Your task to perform on an android device: turn on translation in the chrome app Image 0: 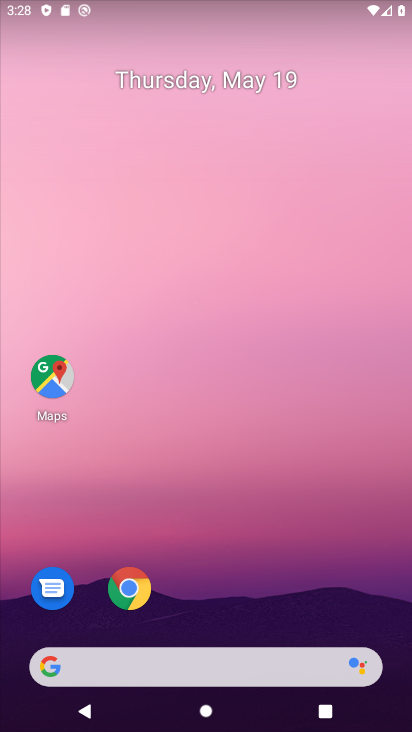
Step 0: click (142, 595)
Your task to perform on an android device: turn on translation in the chrome app Image 1: 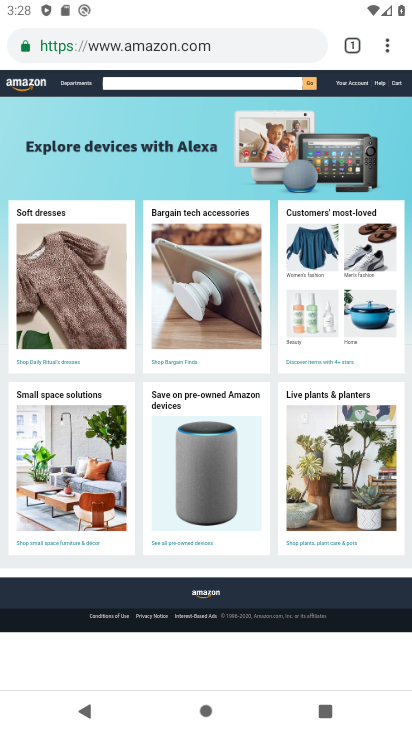
Step 1: click (386, 39)
Your task to perform on an android device: turn on translation in the chrome app Image 2: 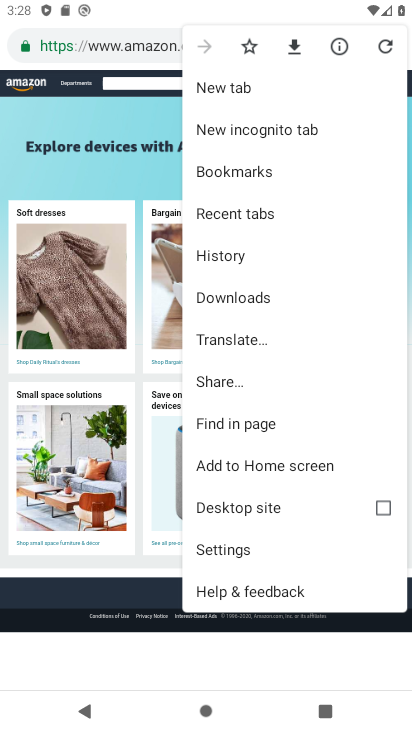
Step 2: click (238, 551)
Your task to perform on an android device: turn on translation in the chrome app Image 3: 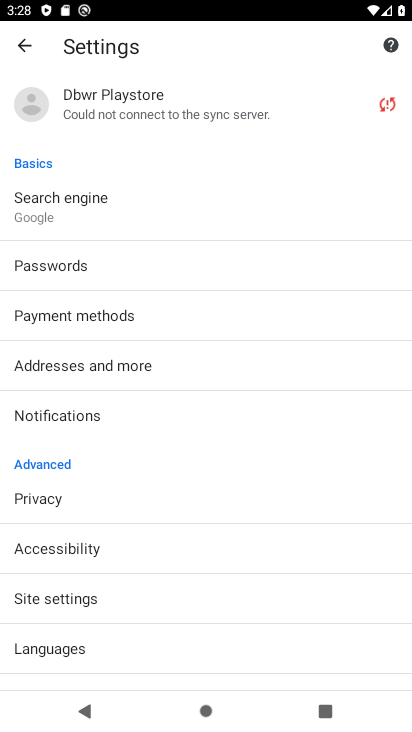
Step 3: drag from (110, 425) to (148, 287)
Your task to perform on an android device: turn on translation in the chrome app Image 4: 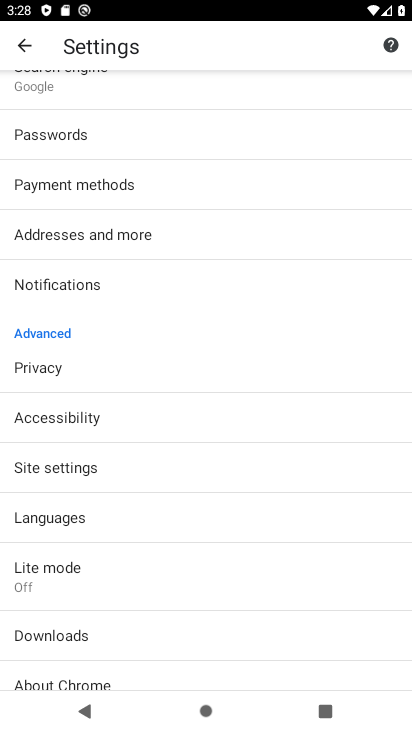
Step 4: click (71, 514)
Your task to perform on an android device: turn on translation in the chrome app Image 5: 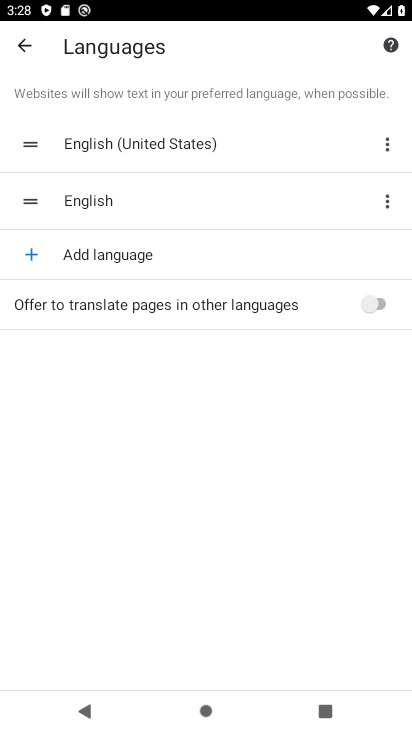
Step 5: click (385, 307)
Your task to perform on an android device: turn on translation in the chrome app Image 6: 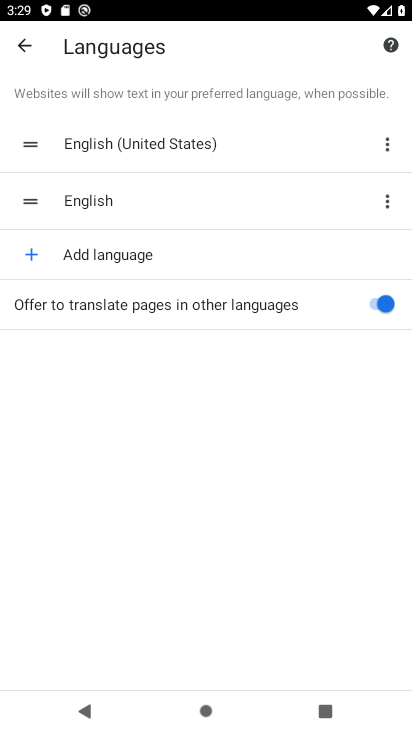
Step 6: task complete